Your task to perform on an android device: toggle data saver in the chrome app Image 0: 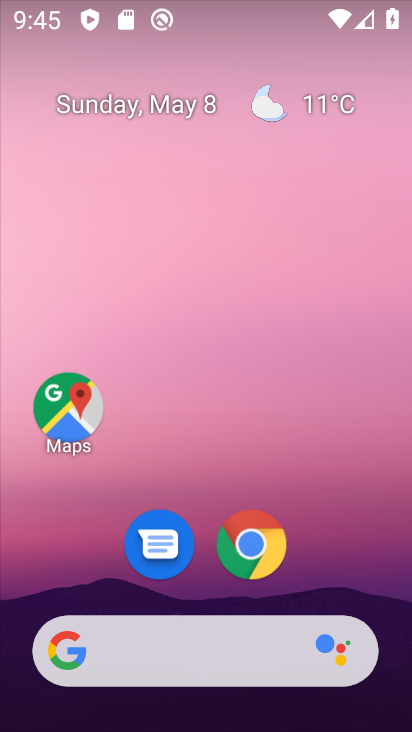
Step 0: drag from (177, 8) to (219, 628)
Your task to perform on an android device: toggle data saver in the chrome app Image 1: 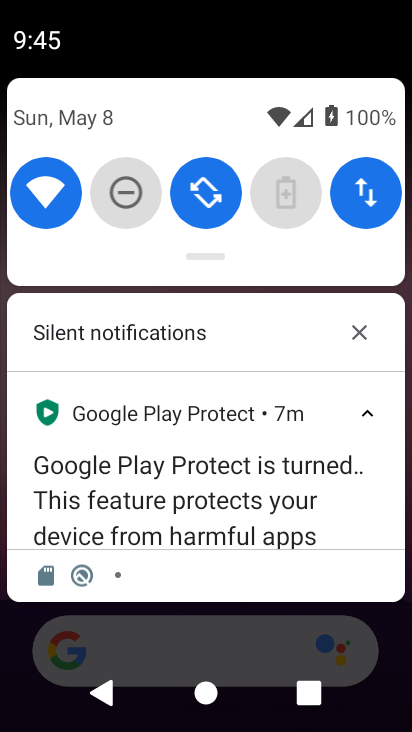
Step 1: click (103, 183)
Your task to perform on an android device: toggle data saver in the chrome app Image 2: 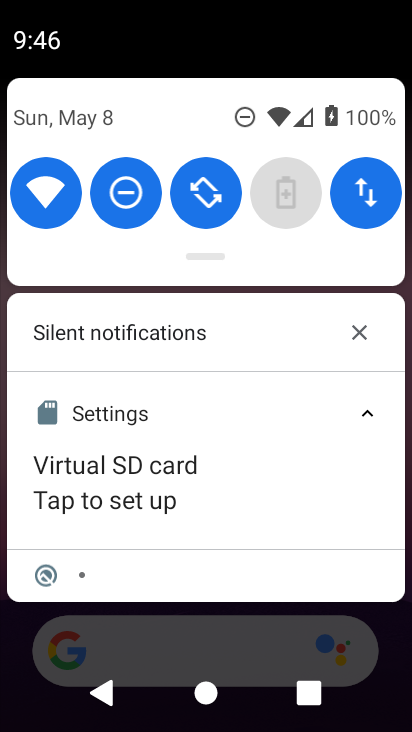
Step 2: task complete